Your task to perform on an android device: What's the weather? Image 0: 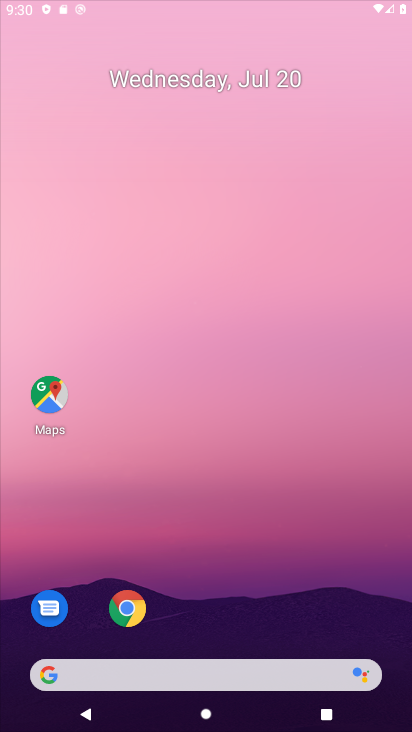
Step 0: drag from (243, 688) to (250, 230)
Your task to perform on an android device: What's the weather? Image 1: 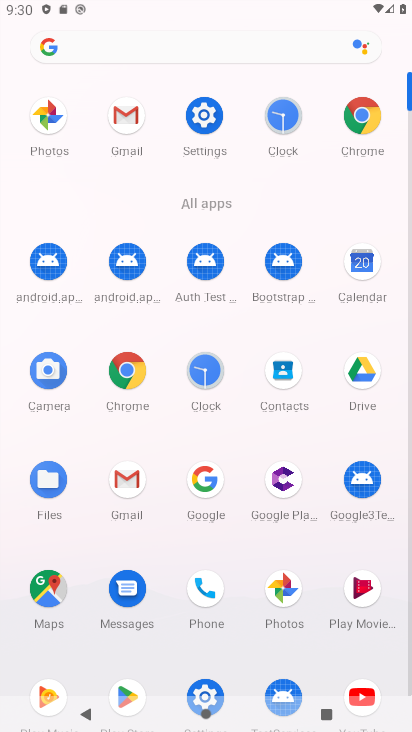
Step 1: click (356, 112)
Your task to perform on an android device: What's the weather? Image 2: 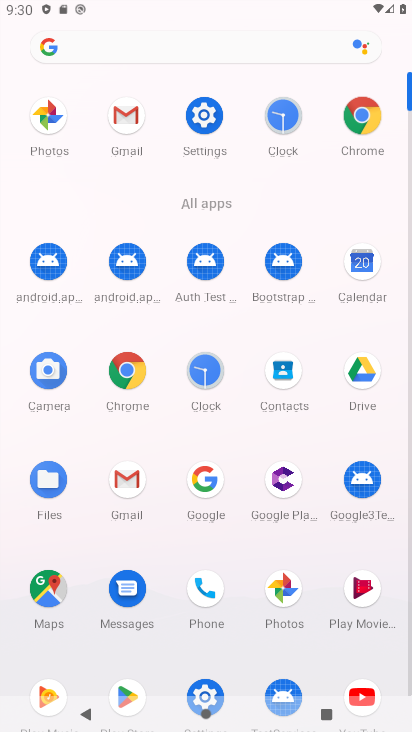
Step 2: click (356, 112)
Your task to perform on an android device: What's the weather? Image 3: 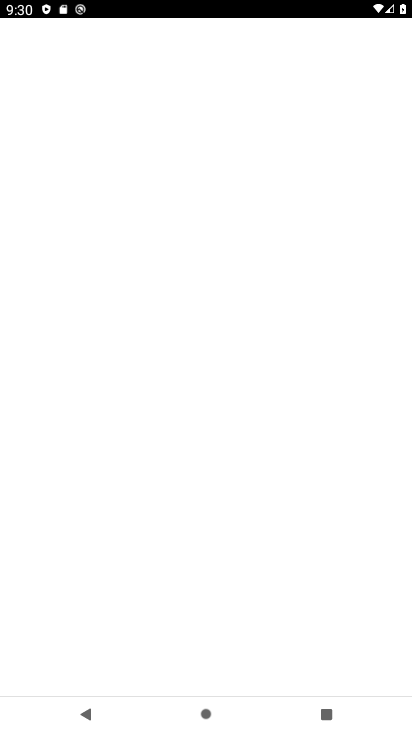
Step 3: click (356, 116)
Your task to perform on an android device: What's the weather? Image 4: 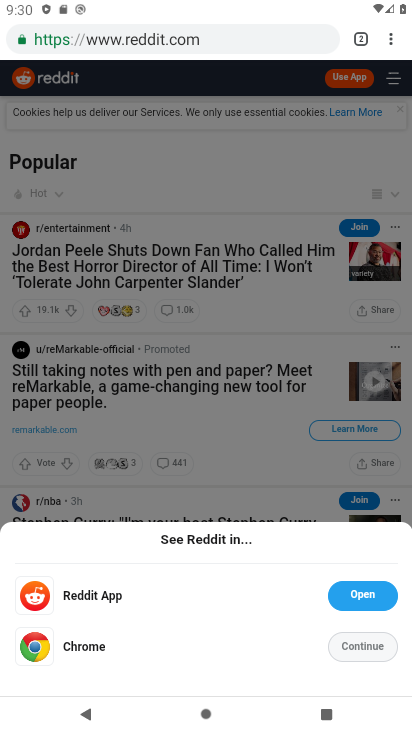
Step 4: click (82, 641)
Your task to perform on an android device: What's the weather? Image 5: 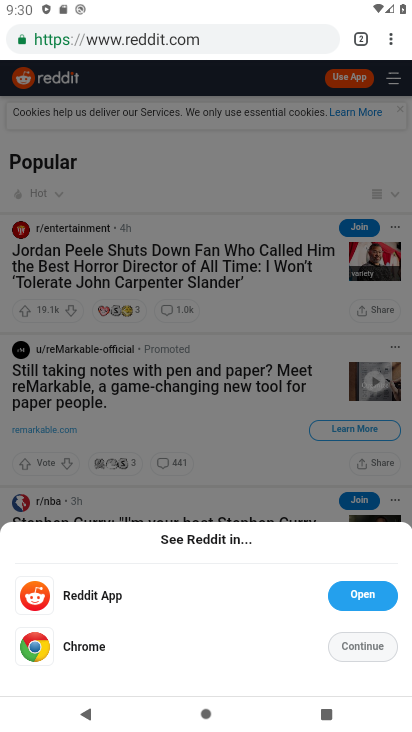
Step 5: click (84, 642)
Your task to perform on an android device: What's the weather? Image 6: 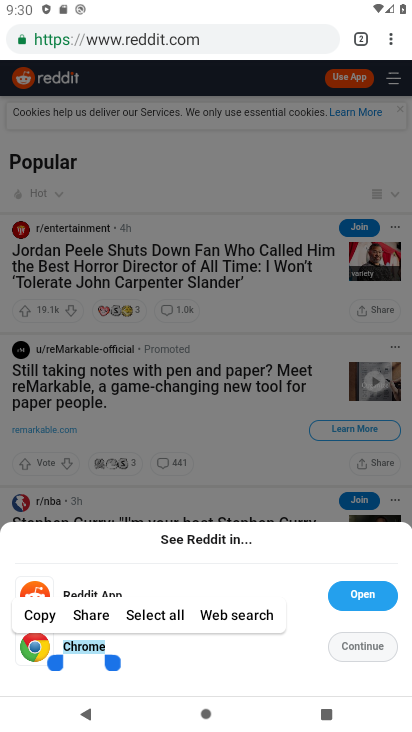
Step 6: click (85, 643)
Your task to perform on an android device: What's the weather? Image 7: 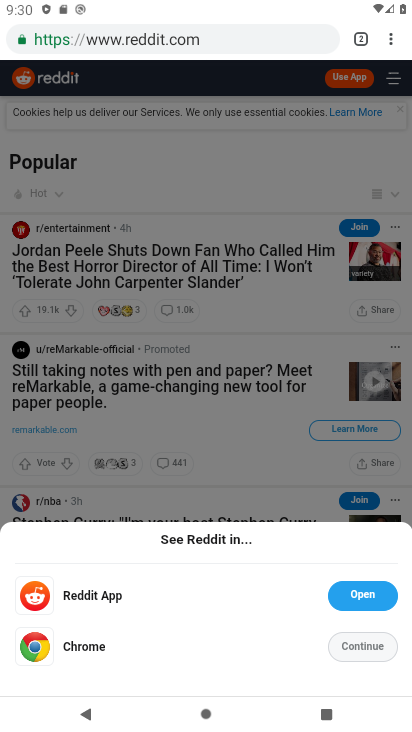
Step 7: click (87, 643)
Your task to perform on an android device: What's the weather? Image 8: 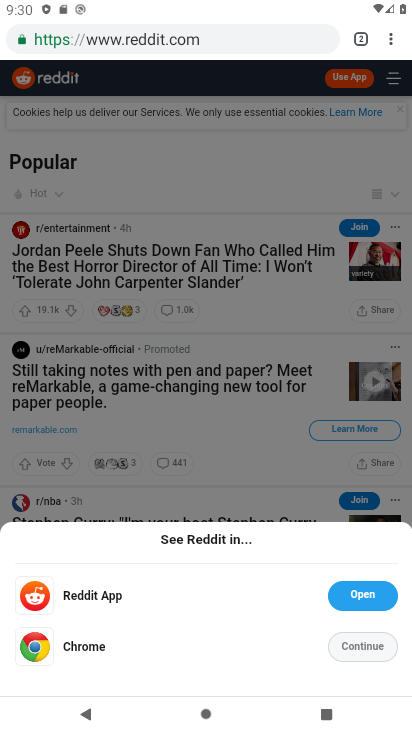
Step 8: click (87, 643)
Your task to perform on an android device: What's the weather? Image 9: 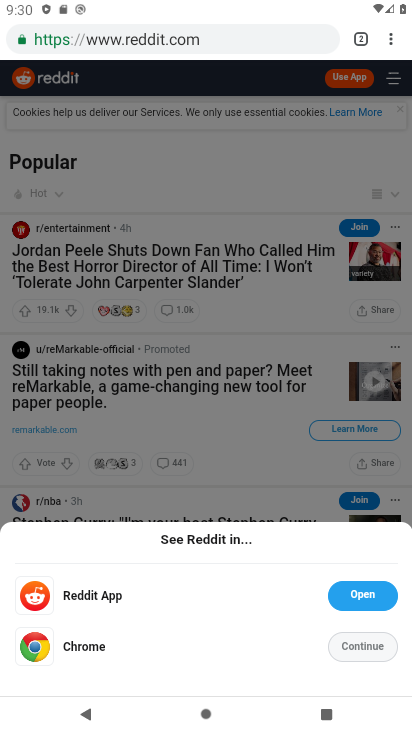
Step 9: click (370, 649)
Your task to perform on an android device: What's the weather? Image 10: 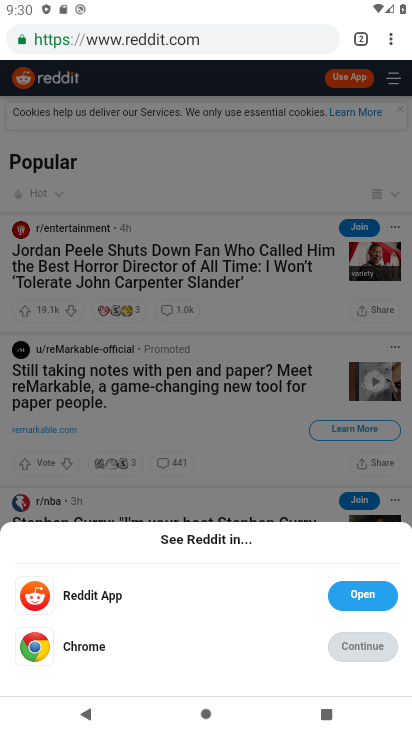
Step 10: click (364, 639)
Your task to perform on an android device: What's the weather? Image 11: 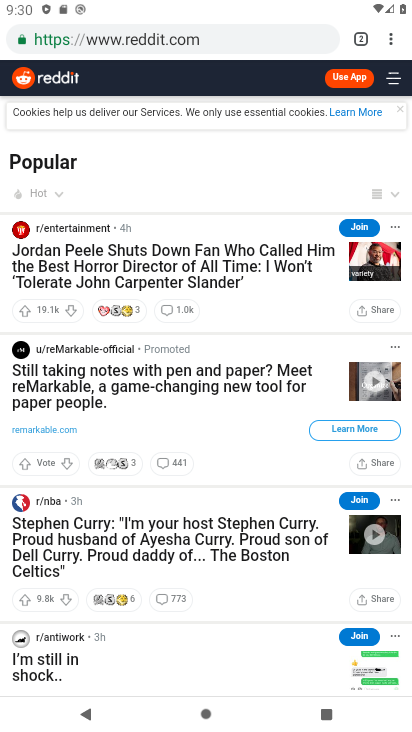
Step 11: click (364, 640)
Your task to perform on an android device: What's the weather? Image 12: 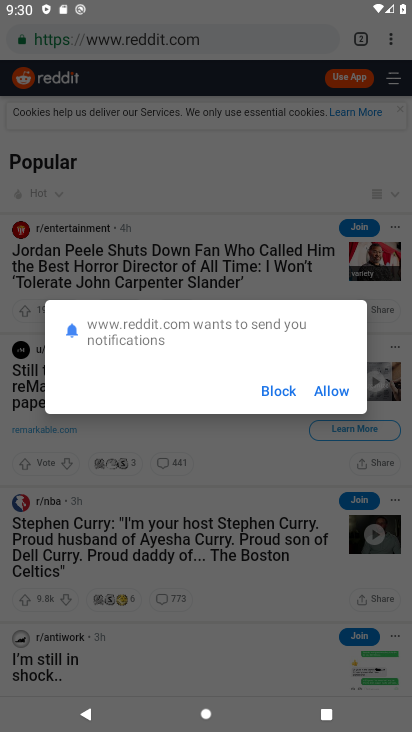
Step 12: click (364, 640)
Your task to perform on an android device: What's the weather? Image 13: 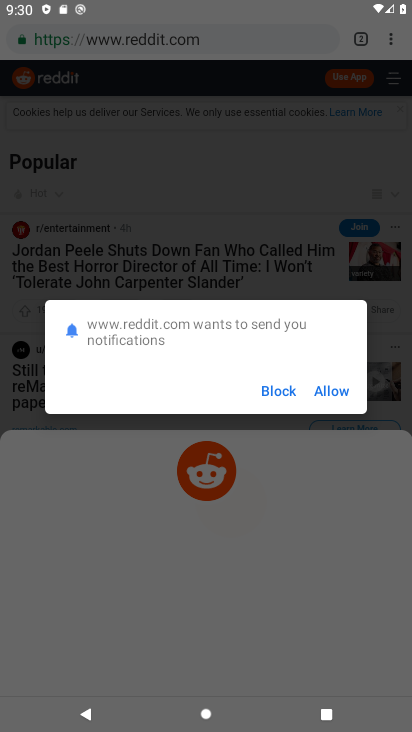
Step 13: click (324, 387)
Your task to perform on an android device: What's the weather? Image 14: 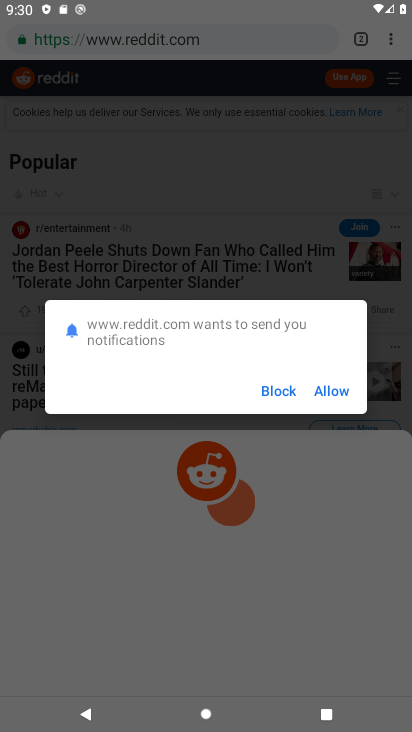
Step 14: click (324, 388)
Your task to perform on an android device: What's the weather? Image 15: 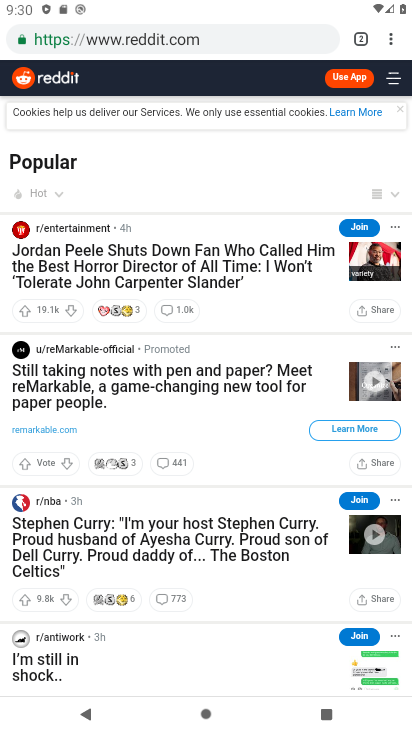
Step 15: drag from (389, 32) to (265, 76)
Your task to perform on an android device: What's the weather? Image 16: 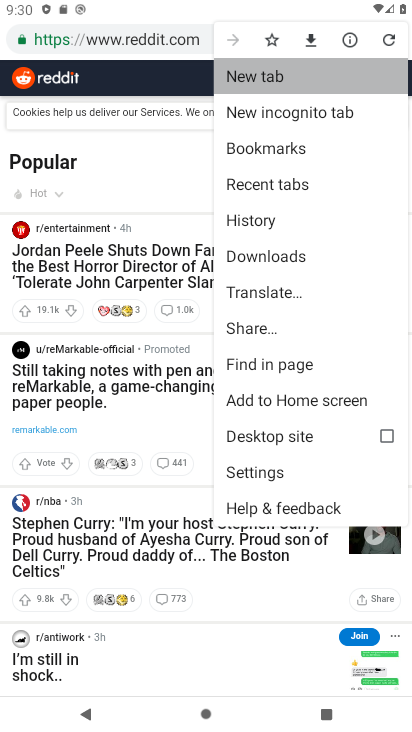
Step 16: click (265, 76)
Your task to perform on an android device: What's the weather? Image 17: 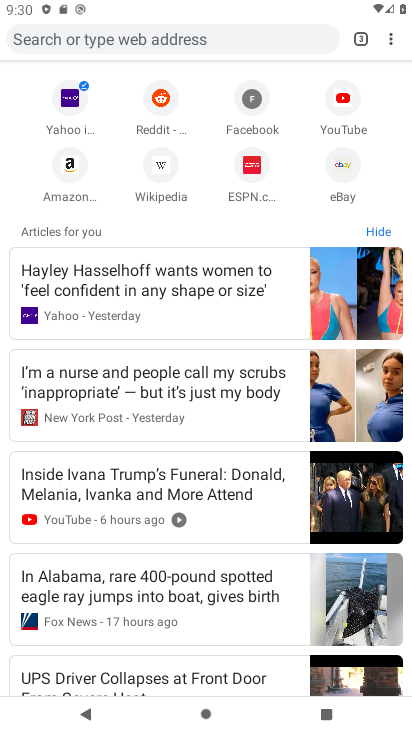
Step 17: click (59, 33)
Your task to perform on an android device: What's the weather? Image 18: 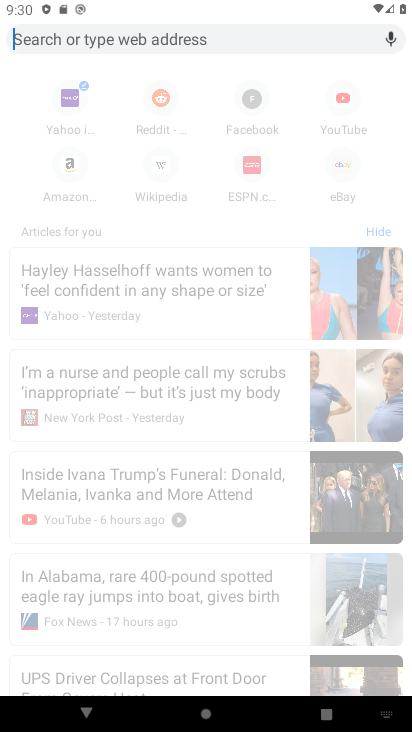
Step 18: type "weather todayu?"
Your task to perform on an android device: What's the weather? Image 19: 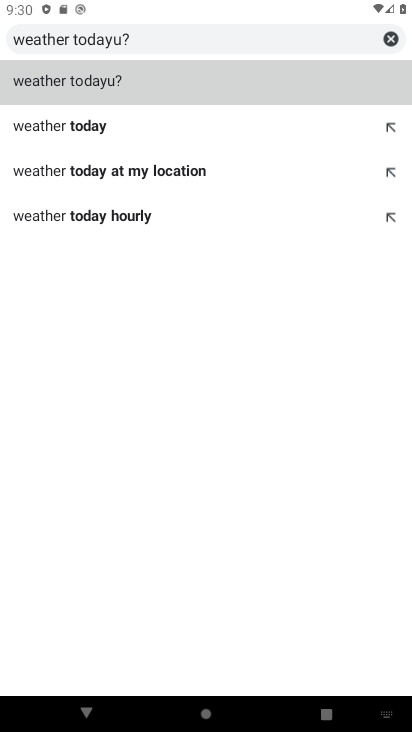
Step 19: click (97, 75)
Your task to perform on an android device: What's the weather? Image 20: 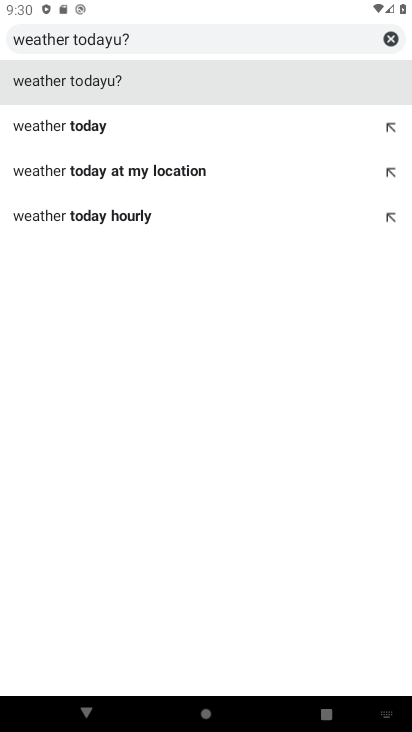
Step 20: click (97, 75)
Your task to perform on an android device: What's the weather? Image 21: 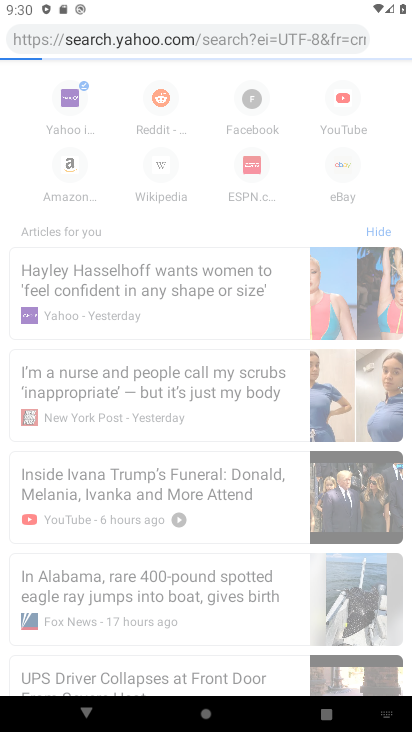
Step 21: click (97, 76)
Your task to perform on an android device: What's the weather? Image 22: 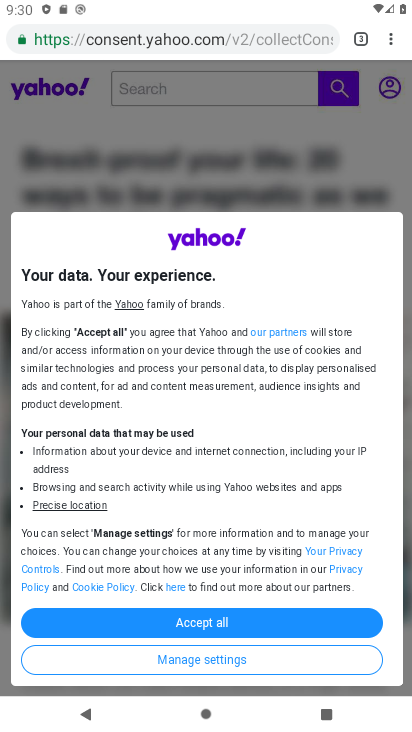
Step 22: task complete